Your task to perform on an android device: turn on wifi Image 0: 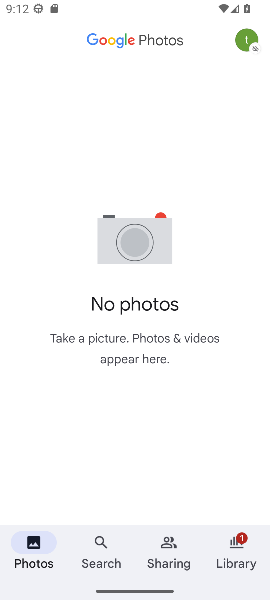
Step 0: drag from (250, 8) to (235, 599)
Your task to perform on an android device: turn on wifi Image 1: 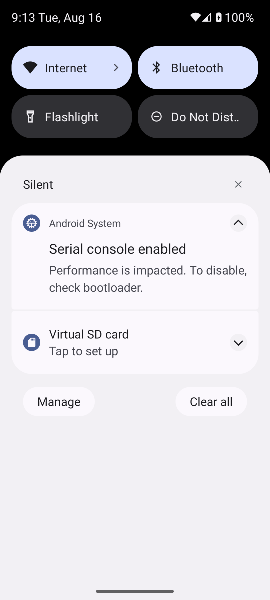
Step 1: task complete